Your task to perform on an android device: make emails show in primary in the gmail app Image 0: 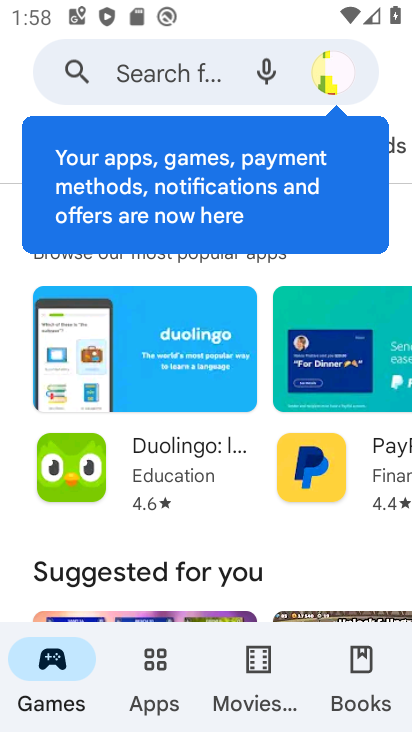
Step 0: press home button
Your task to perform on an android device: make emails show in primary in the gmail app Image 1: 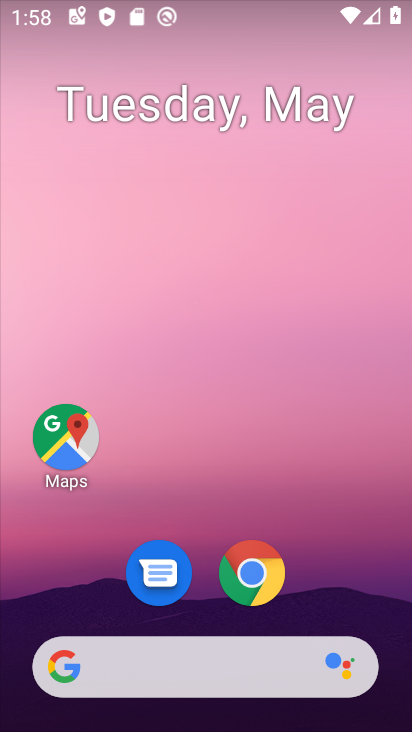
Step 1: drag from (193, 524) to (184, 107)
Your task to perform on an android device: make emails show in primary in the gmail app Image 2: 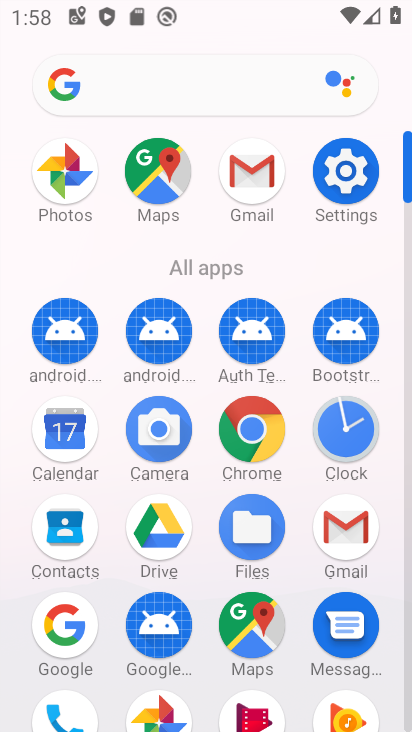
Step 2: click (252, 169)
Your task to perform on an android device: make emails show in primary in the gmail app Image 3: 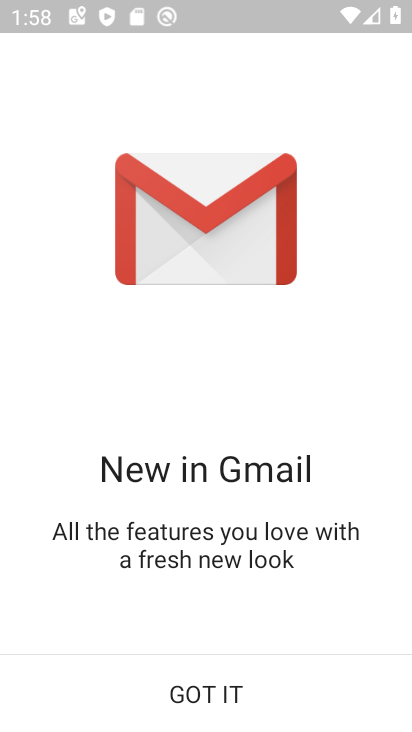
Step 3: click (211, 689)
Your task to perform on an android device: make emails show in primary in the gmail app Image 4: 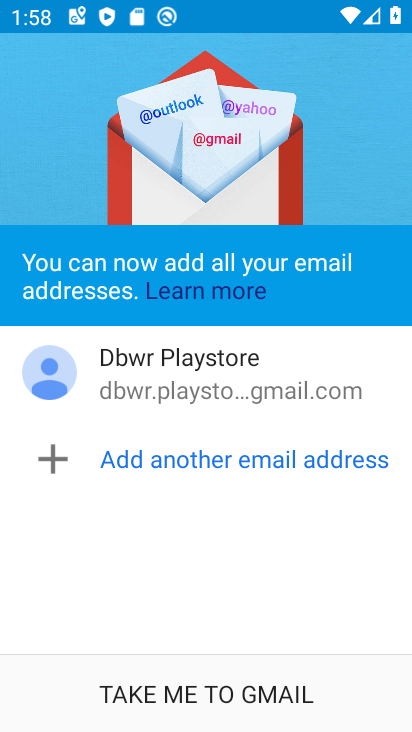
Step 4: click (195, 703)
Your task to perform on an android device: make emails show in primary in the gmail app Image 5: 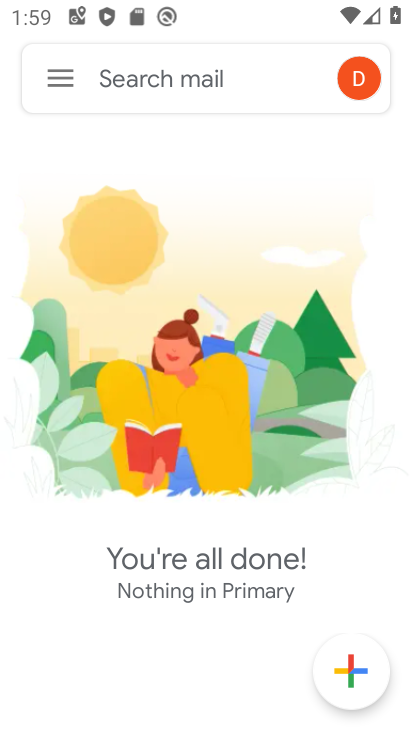
Step 5: click (61, 70)
Your task to perform on an android device: make emails show in primary in the gmail app Image 6: 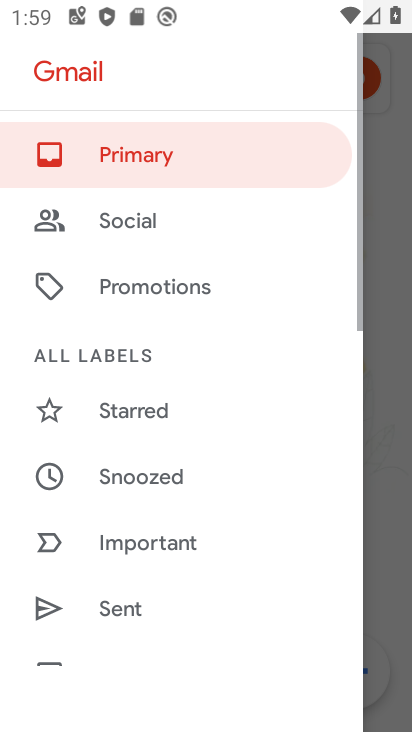
Step 6: drag from (98, 649) to (102, 38)
Your task to perform on an android device: make emails show in primary in the gmail app Image 7: 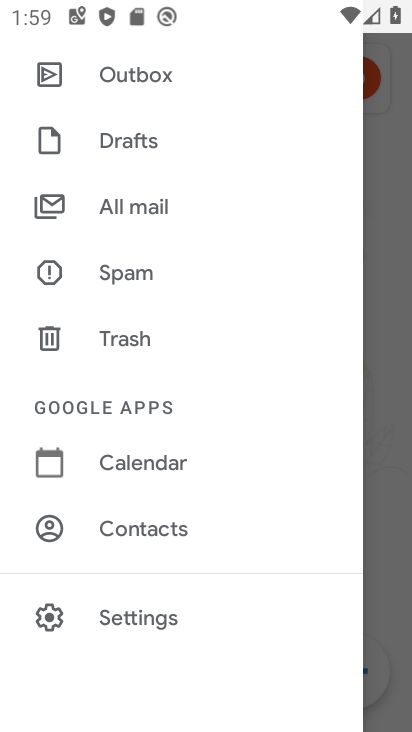
Step 7: click (143, 620)
Your task to perform on an android device: make emails show in primary in the gmail app Image 8: 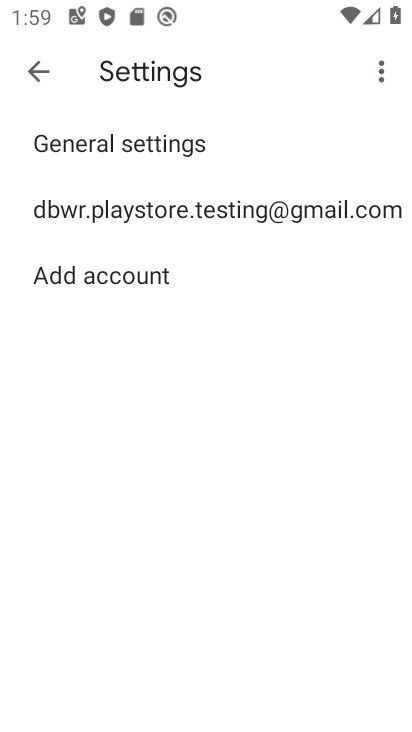
Step 8: click (220, 187)
Your task to perform on an android device: make emails show in primary in the gmail app Image 9: 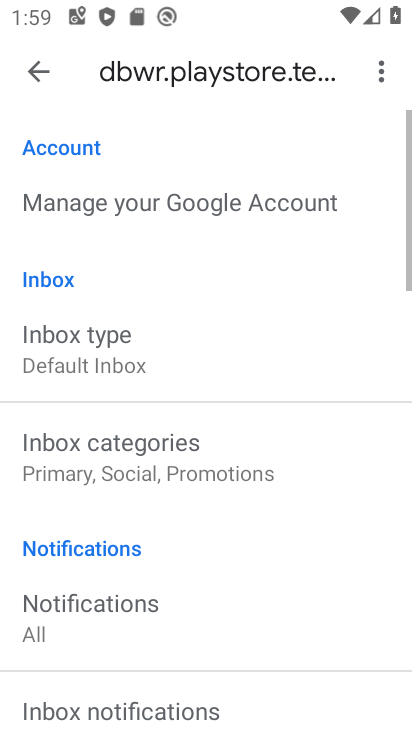
Step 9: click (146, 349)
Your task to perform on an android device: make emails show in primary in the gmail app Image 10: 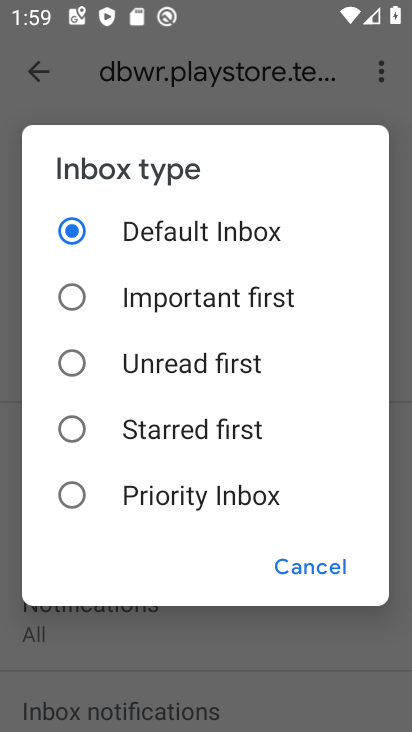
Step 10: click (81, 232)
Your task to perform on an android device: make emails show in primary in the gmail app Image 11: 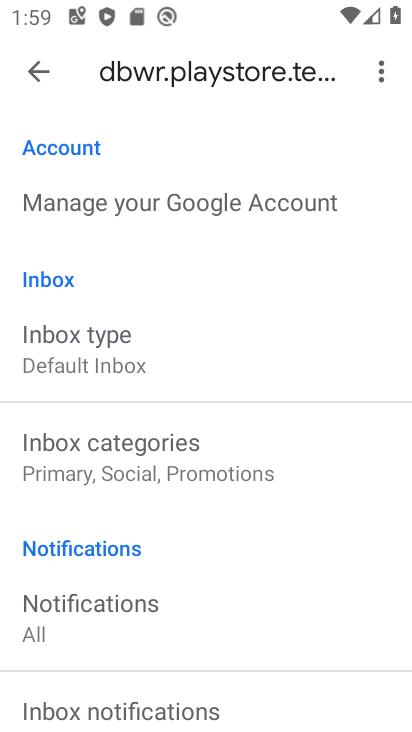
Step 11: task complete